Your task to perform on an android device: Open Android settings Image 0: 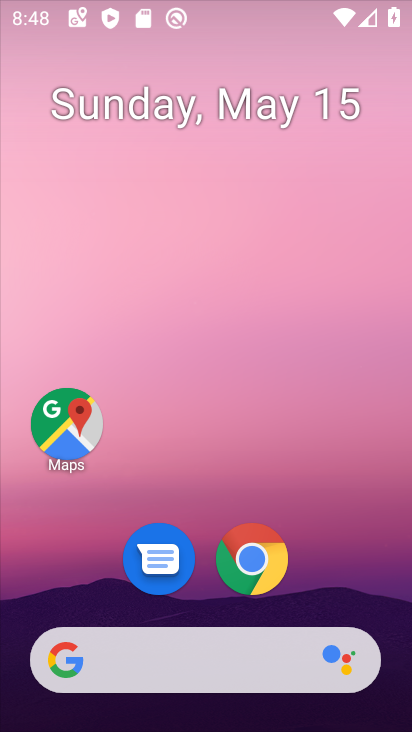
Step 0: drag from (362, 566) to (363, 103)
Your task to perform on an android device: Open Android settings Image 1: 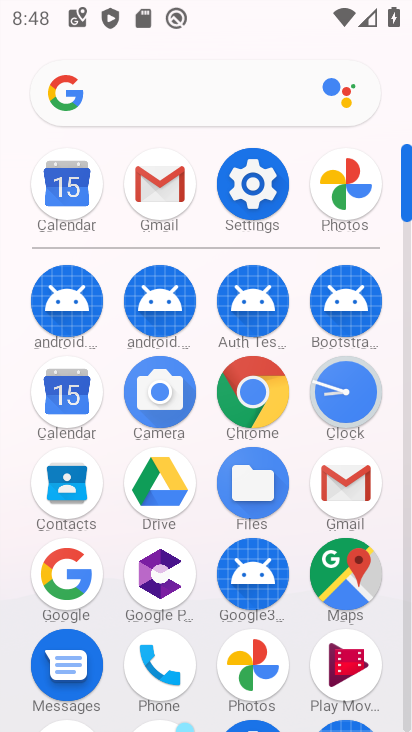
Step 1: click (270, 183)
Your task to perform on an android device: Open Android settings Image 2: 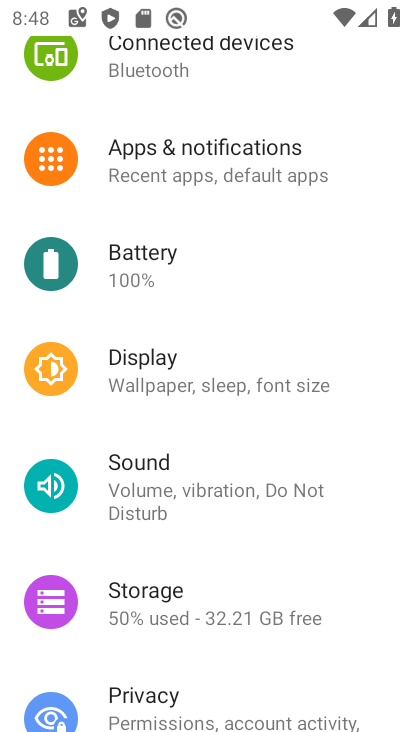
Step 2: task complete